Your task to perform on an android device: change the clock display to analog Image 0: 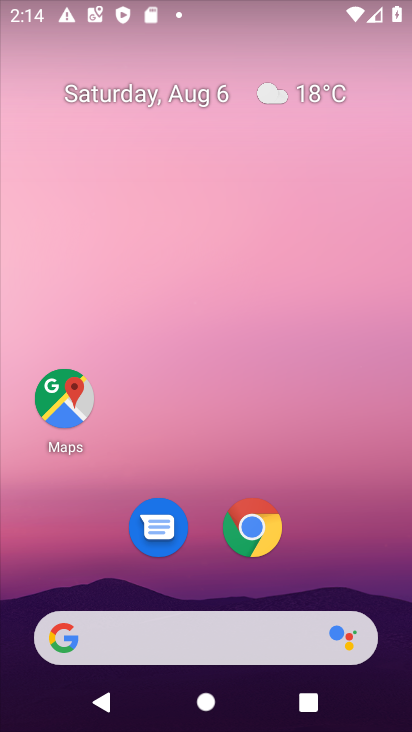
Step 0: drag from (232, 591) to (196, 135)
Your task to perform on an android device: change the clock display to analog Image 1: 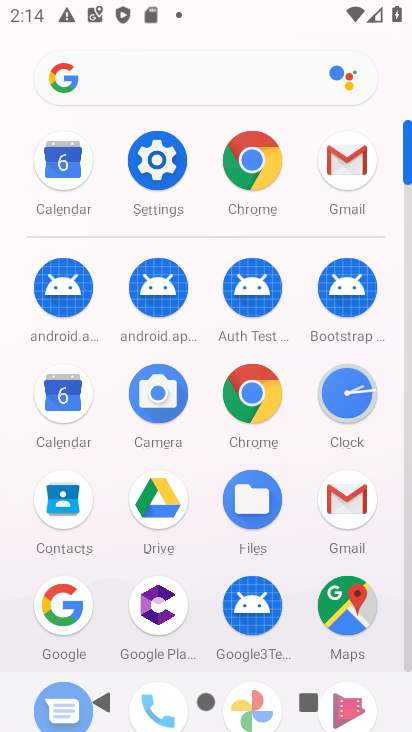
Step 1: click (345, 409)
Your task to perform on an android device: change the clock display to analog Image 2: 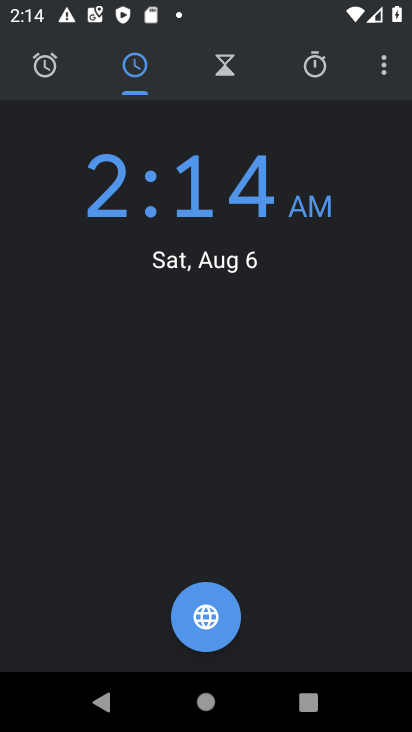
Step 2: click (385, 66)
Your task to perform on an android device: change the clock display to analog Image 3: 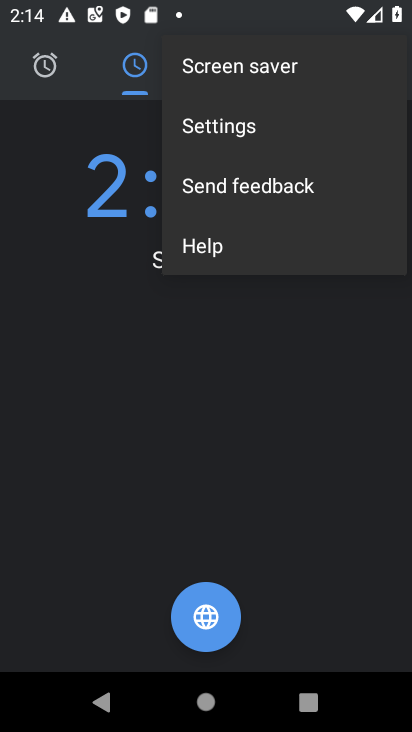
Step 3: click (235, 132)
Your task to perform on an android device: change the clock display to analog Image 4: 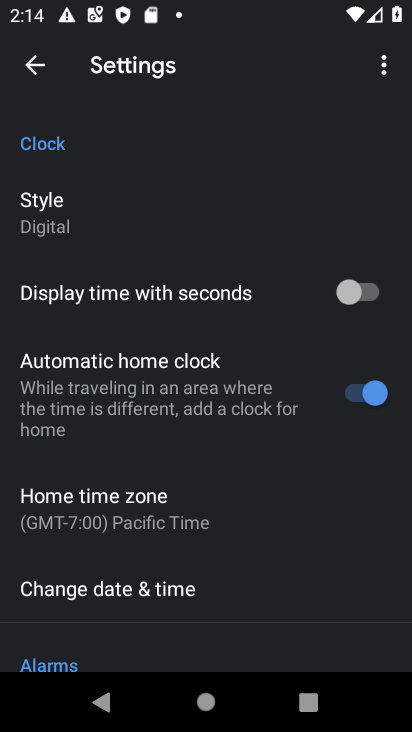
Step 4: click (187, 214)
Your task to perform on an android device: change the clock display to analog Image 5: 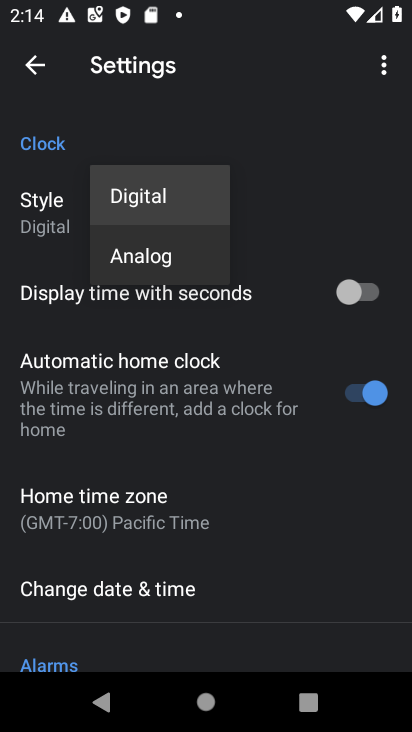
Step 5: click (185, 264)
Your task to perform on an android device: change the clock display to analog Image 6: 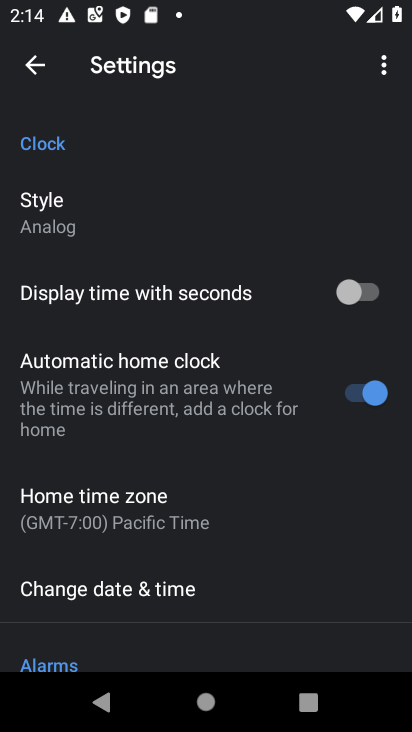
Step 6: task complete